Your task to perform on an android device: turn off smart reply in the gmail app Image 0: 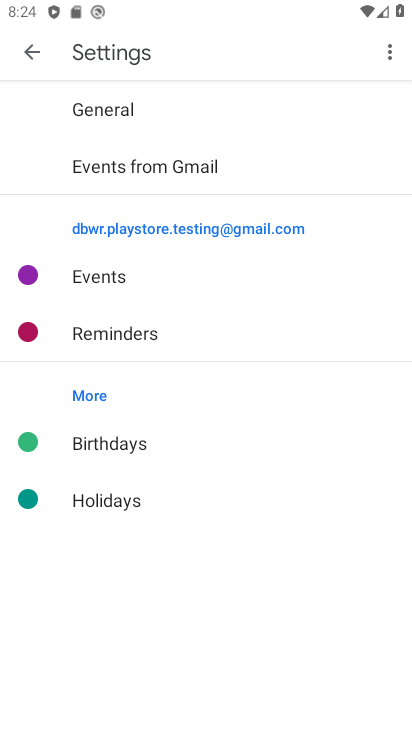
Step 0: press home button
Your task to perform on an android device: turn off smart reply in the gmail app Image 1: 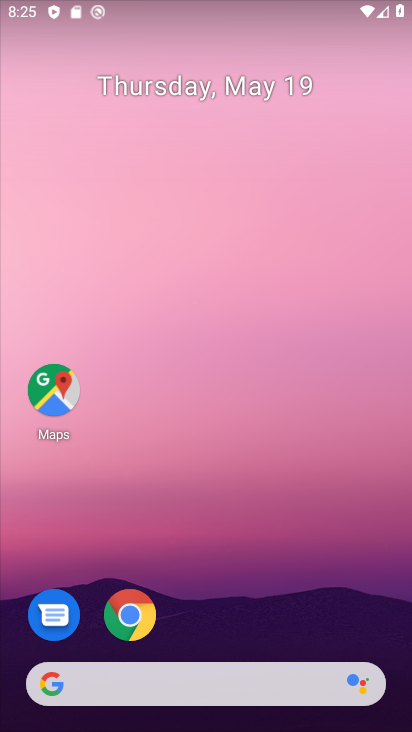
Step 1: drag from (225, 621) to (246, 2)
Your task to perform on an android device: turn off smart reply in the gmail app Image 2: 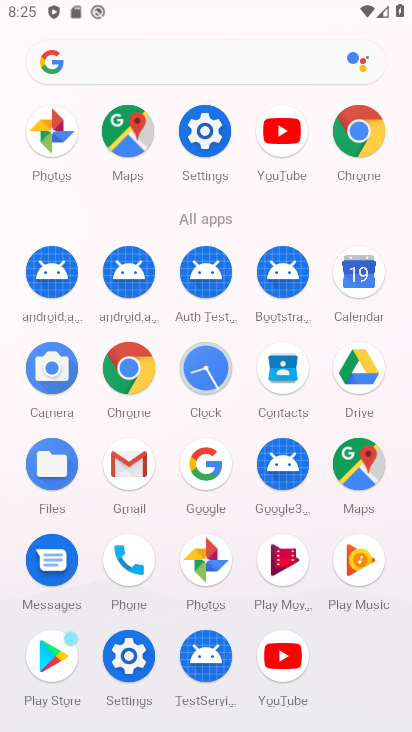
Step 2: click (123, 481)
Your task to perform on an android device: turn off smart reply in the gmail app Image 3: 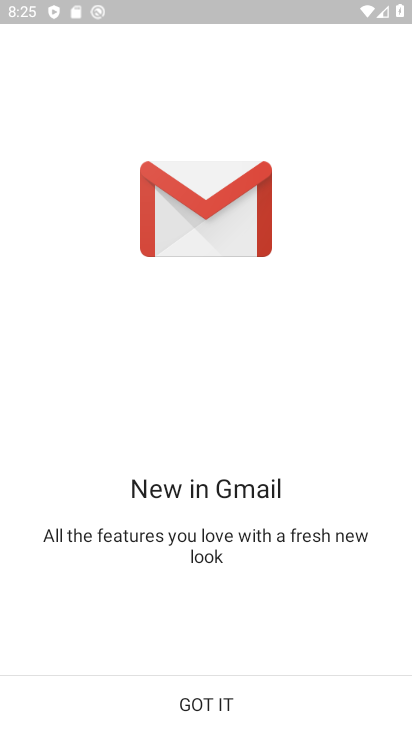
Step 3: click (205, 695)
Your task to perform on an android device: turn off smart reply in the gmail app Image 4: 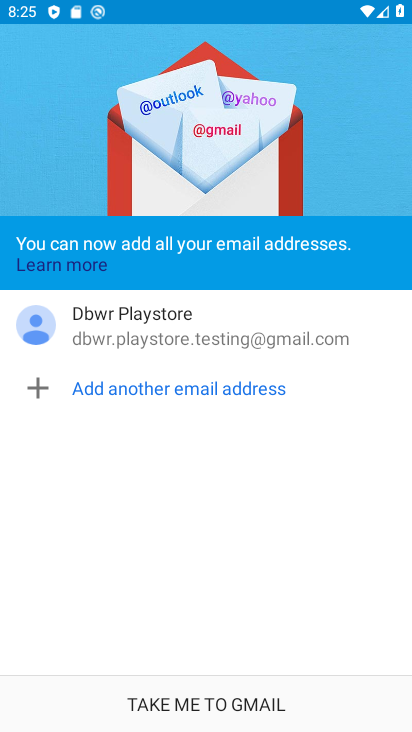
Step 4: click (163, 342)
Your task to perform on an android device: turn off smart reply in the gmail app Image 5: 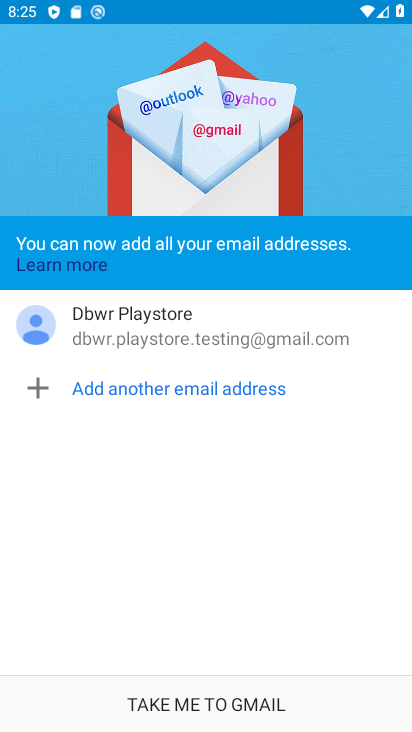
Step 5: click (184, 698)
Your task to perform on an android device: turn off smart reply in the gmail app Image 6: 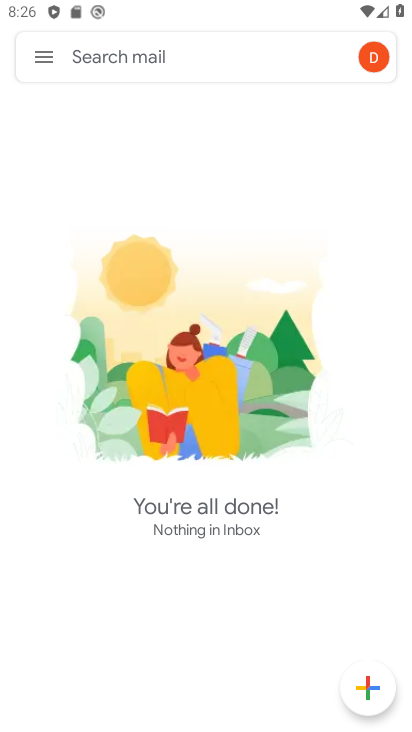
Step 6: click (34, 47)
Your task to perform on an android device: turn off smart reply in the gmail app Image 7: 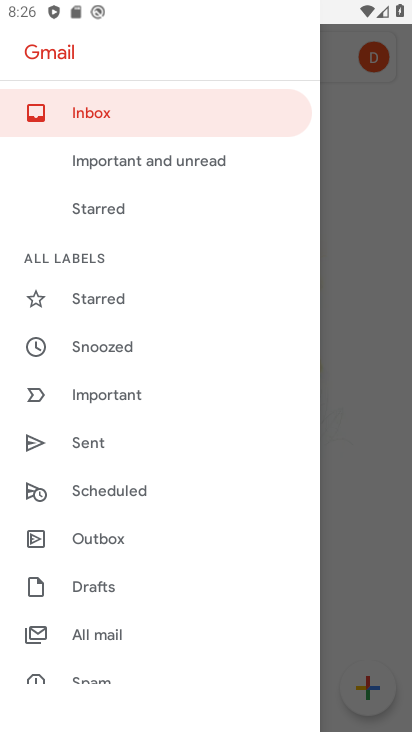
Step 7: drag from (129, 643) to (101, 226)
Your task to perform on an android device: turn off smart reply in the gmail app Image 8: 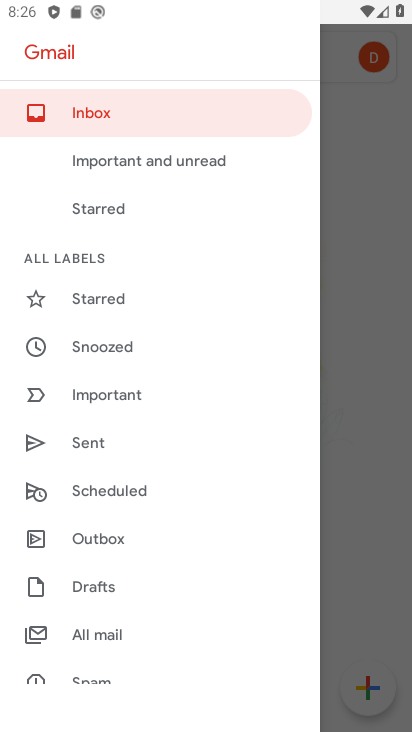
Step 8: drag from (170, 567) to (229, 95)
Your task to perform on an android device: turn off smart reply in the gmail app Image 9: 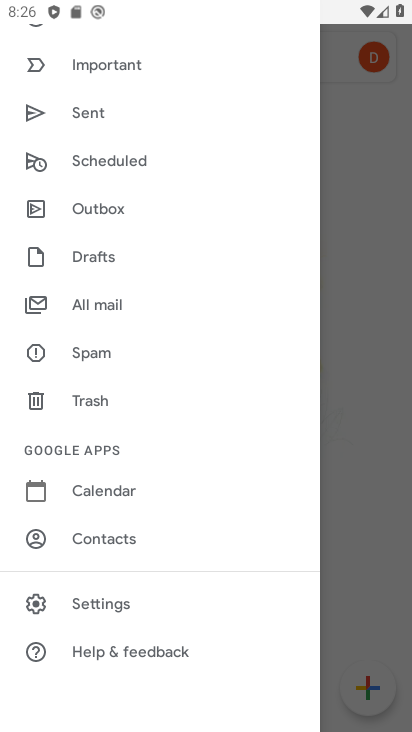
Step 9: click (111, 604)
Your task to perform on an android device: turn off smart reply in the gmail app Image 10: 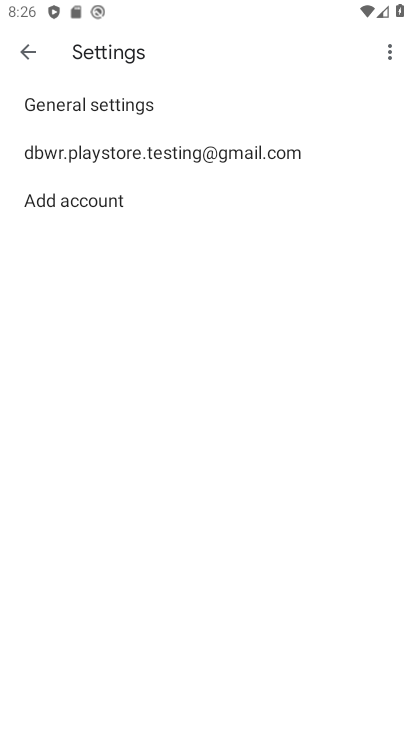
Step 10: click (108, 156)
Your task to perform on an android device: turn off smart reply in the gmail app Image 11: 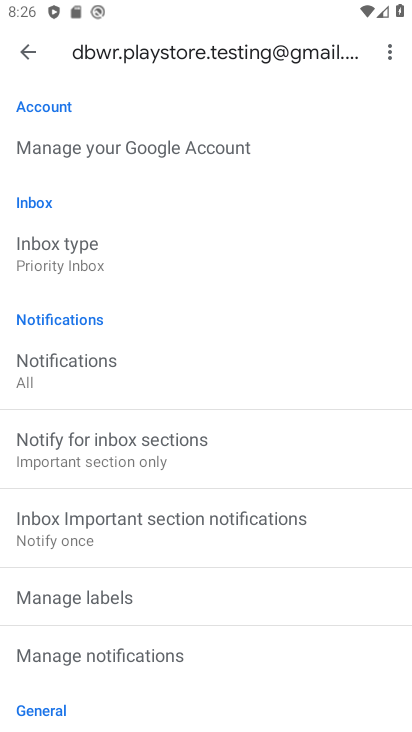
Step 11: drag from (100, 634) to (98, 163)
Your task to perform on an android device: turn off smart reply in the gmail app Image 12: 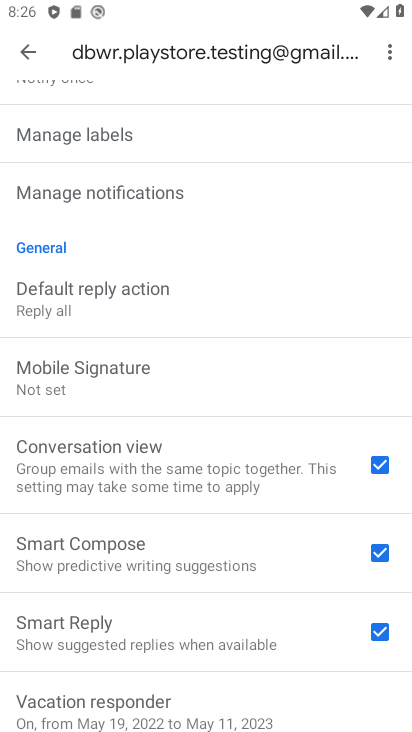
Step 12: click (371, 634)
Your task to perform on an android device: turn off smart reply in the gmail app Image 13: 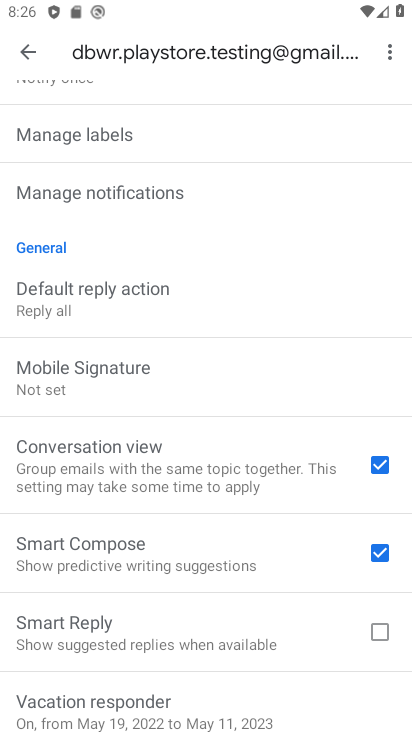
Step 13: task complete